Your task to perform on an android device: delete browsing data in the chrome app Image 0: 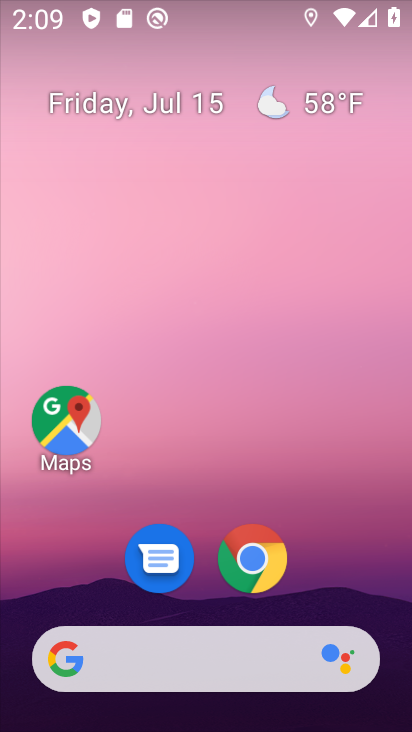
Step 0: drag from (355, 577) to (391, 154)
Your task to perform on an android device: delete browsing data in the chrome app Image 1: 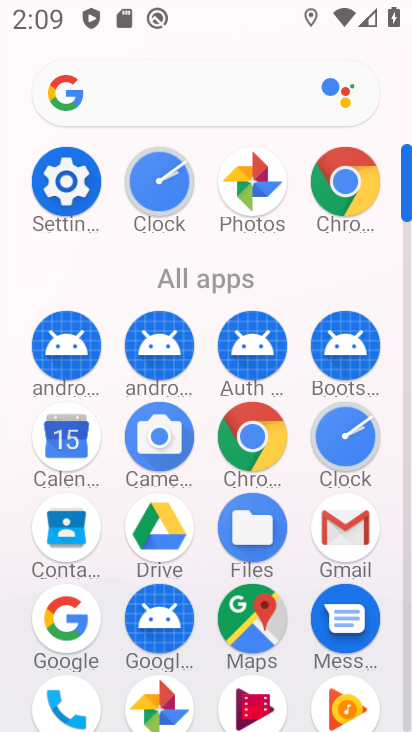
Step 1: click (354, 199)
Your task to perform on an android device: delete browsing data in the chrome app Image 2: 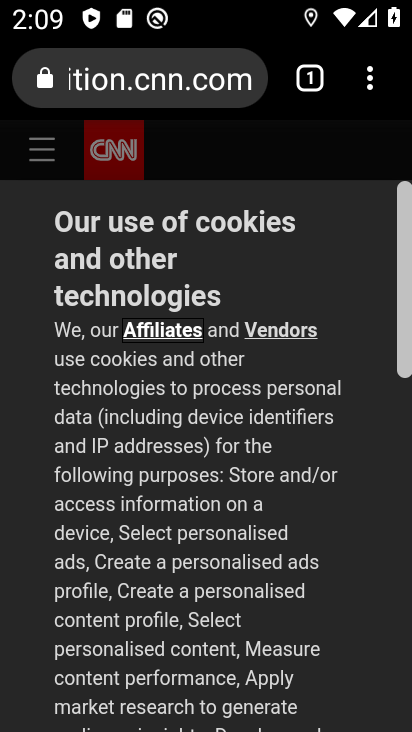
Step 2: click (368, 76)
Your task to perform on an android device: delete browsing data in the chrome app Image 3: 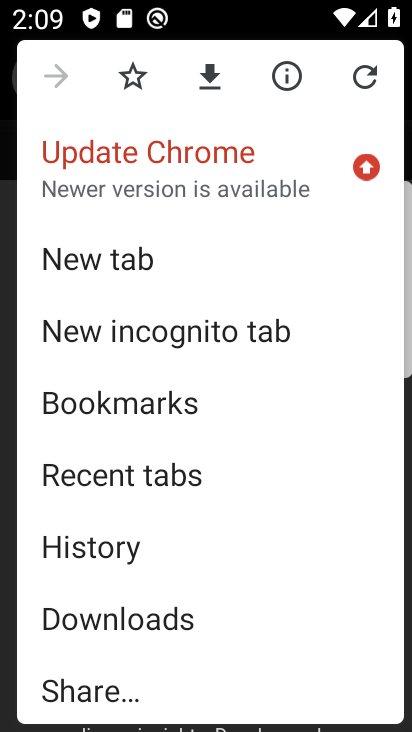
Step 3: drag from (342, 461) to (351, 391)
Your task to perform on an android device: delete browsing data in the chrome app Image 4: 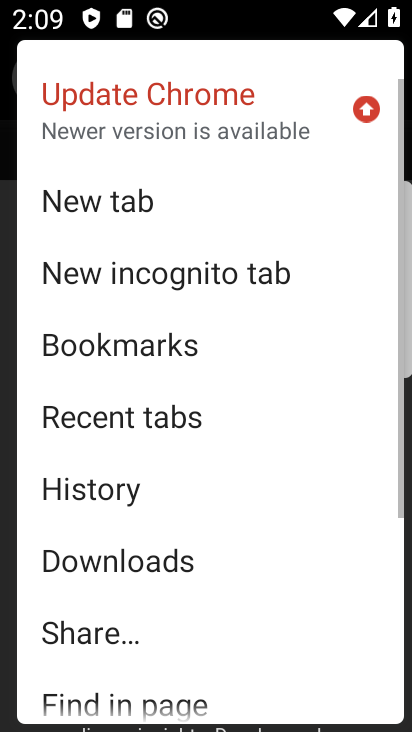
Step 4: drag from (337, 446) to (348, 377)
Your task to perform on an android device: delete browsing data in the chrome app Image 5: 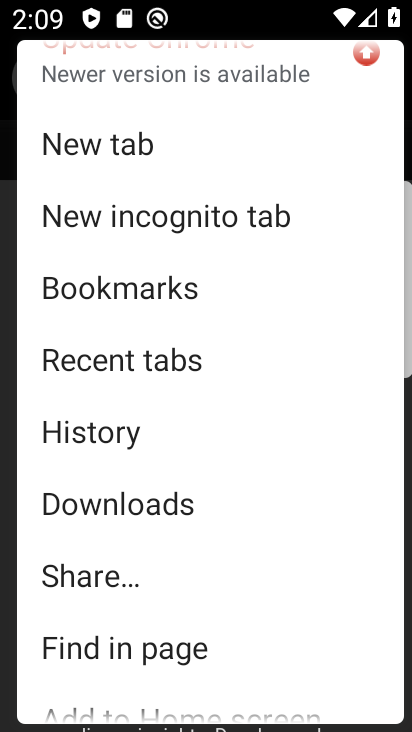
Step 5: drag from (330, 463) to (336, 383)
Your task to perform on an android device: delete browsing data in the chrome app Image 6: 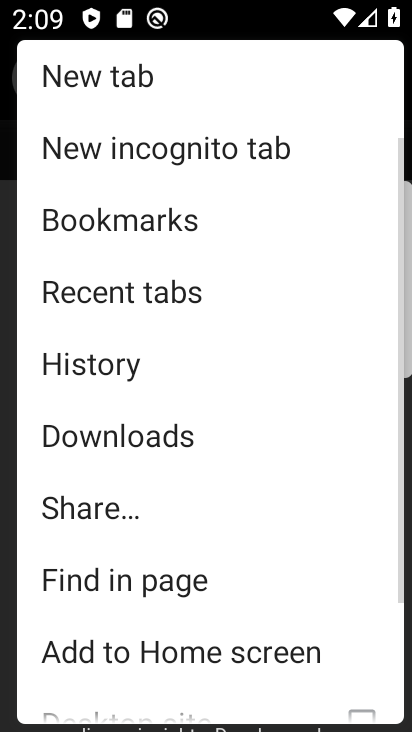
Step 6: drag from (328, 454) to (336, 389)
Your task to perform on an android device: delete browsing data in the chrome app Image 7: 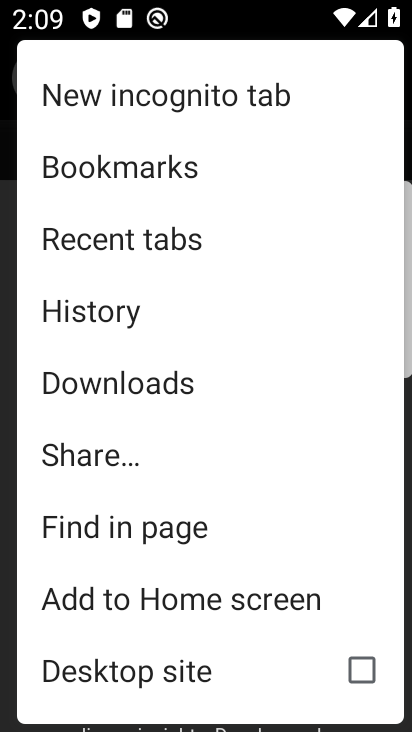
Step 7: drag from (325, 444) to (320, 356)
Your task to perform on an android device: delete browsing data in the chrome app Image 8: 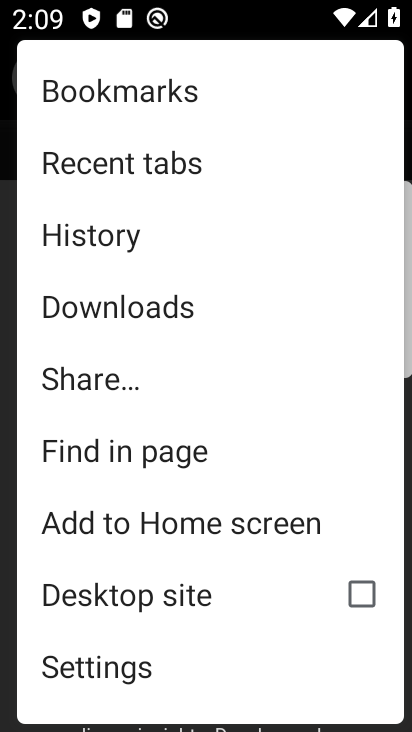
Step 8: drag from (307, 424) to (311, 333)
Your task to perform on an android device: delete browsing data in the chrome app Image 9: 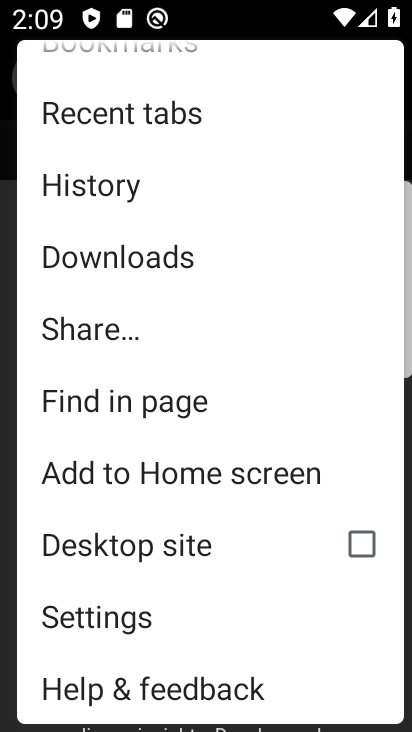
Step 9: click (136, 610)
Your task to perform on an android device: delete browsing data in the chrome app Image 10: 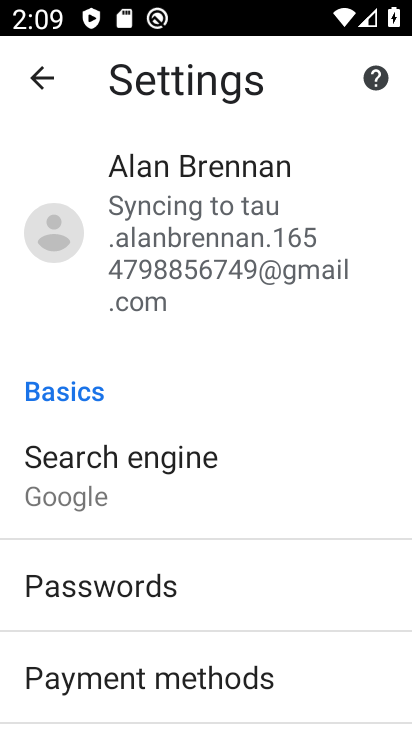
Step 10: drag from (270, 578) to (283, 496)
Your task to perform on an android device: delete browsing data in the chrome app Image 11: 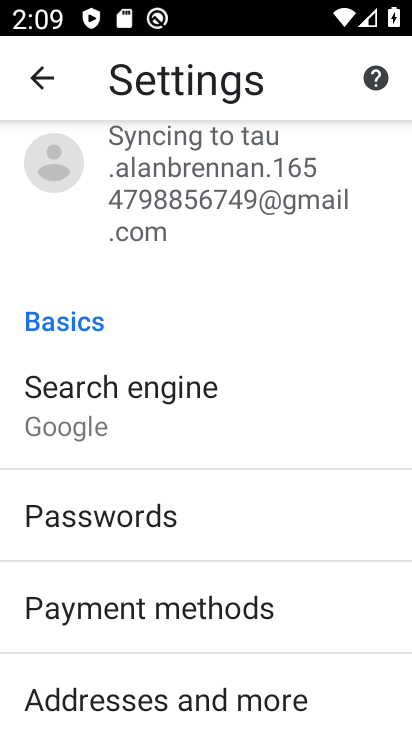
Step 11: drag from (311, 572) to (317, 489)
Your task to perform on an android device: delete browsing data in the chrome app Image 12: 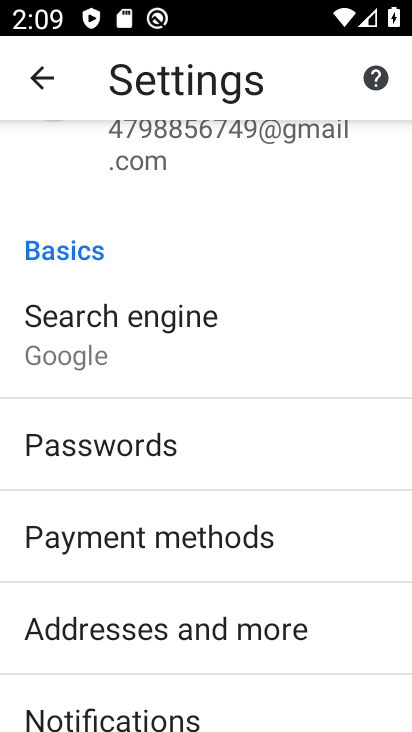
Step 12: drag from (322, 554) to (335, 470)
Your task to perform on an android device: delete browsing data in the chrome app Image 13: 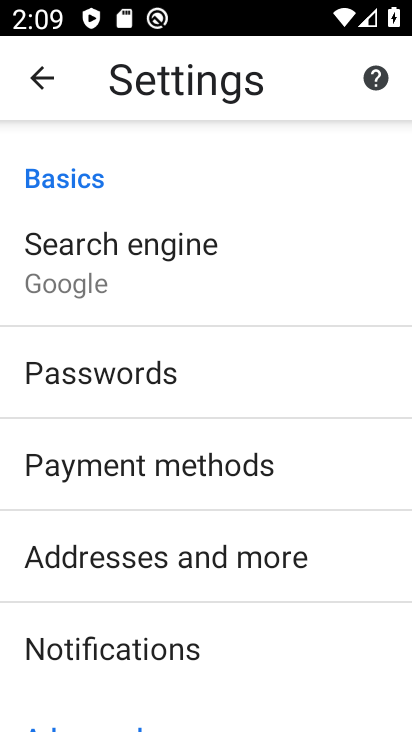
Step 13: drag from (328, 563) to (334, 475)
Your task to perform on an android device: delete browsing data in the chrome app Image 14: 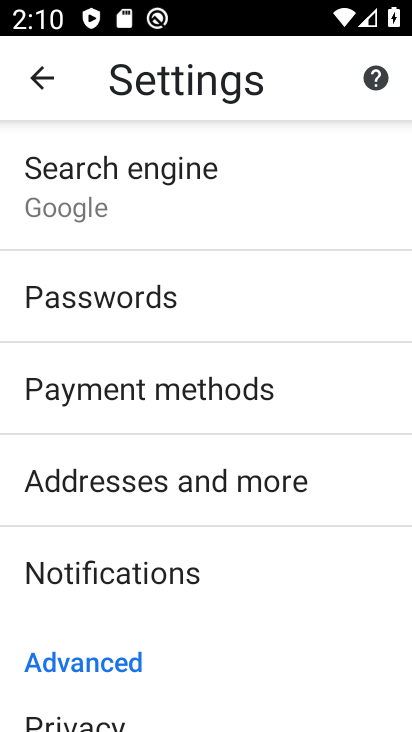
Step 14: drag from (348, 567) to (348, 427)
Your task to perform on an android device: delete browsing data in the chrome app Image 15: 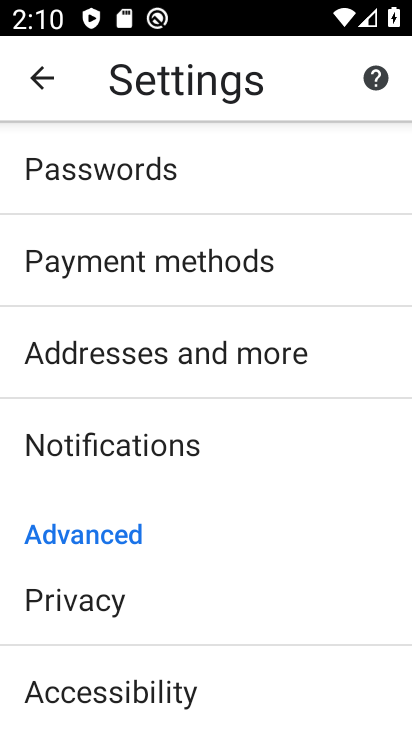
Step 15: drag from (347, 560) to (350, 433)
Your task to perform on an android device: delete browsing data in the chrome app Image 16: 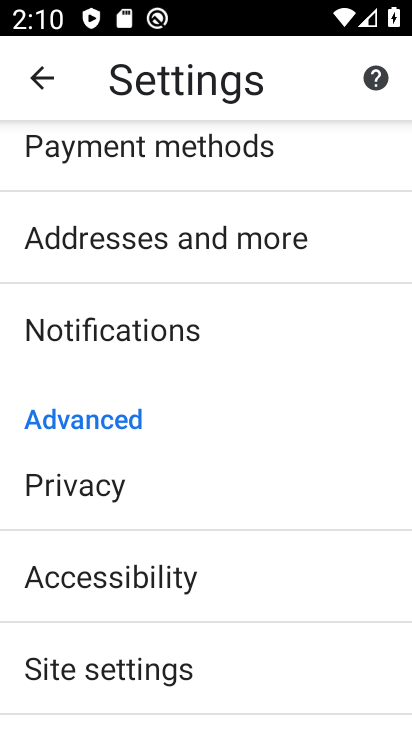
Step 16: drag from (340, 588) to (338, 447)
Your task to perform on an android device: delete browsing data in the chrome app Image 17: 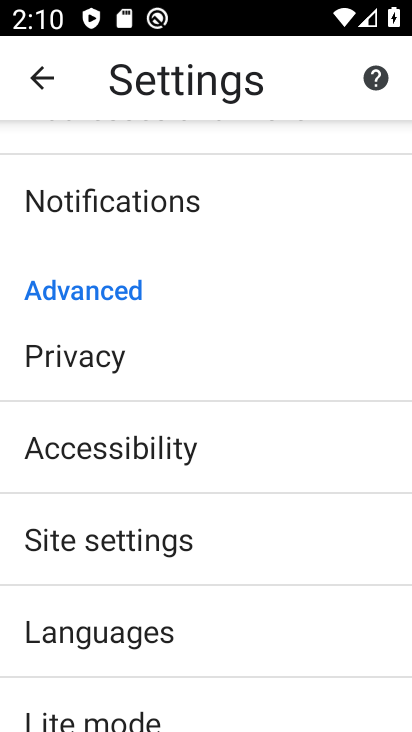
Step 17: drag from (322, 548) to (325, 451)
Your task to perform on an android device: delete browsing data in the chrome app Image 18: 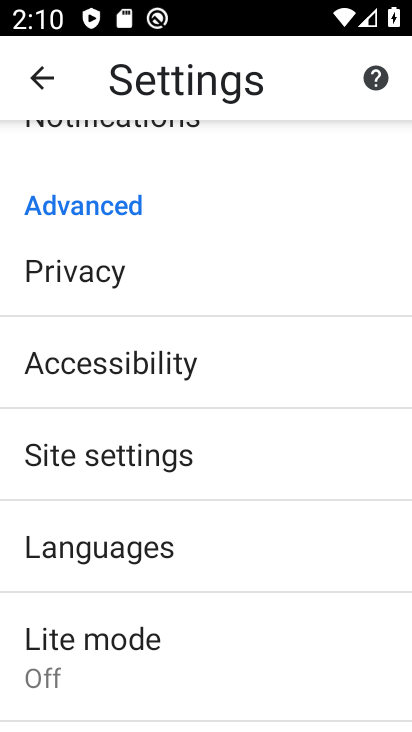
Step 18: click (246, 295)
Your task to perform on an android device: delete browsing data in the chrome app Image 19: 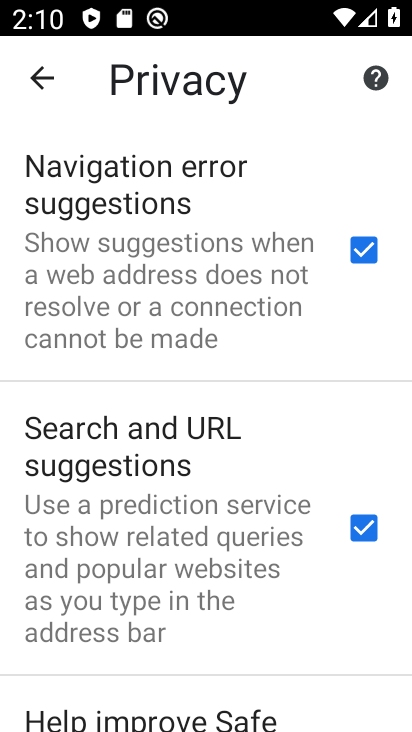
Step 19: drag from (289, 584) to (299, 466)
Your task to perform on an android device: delete browsing data in the chrome app Image 20: 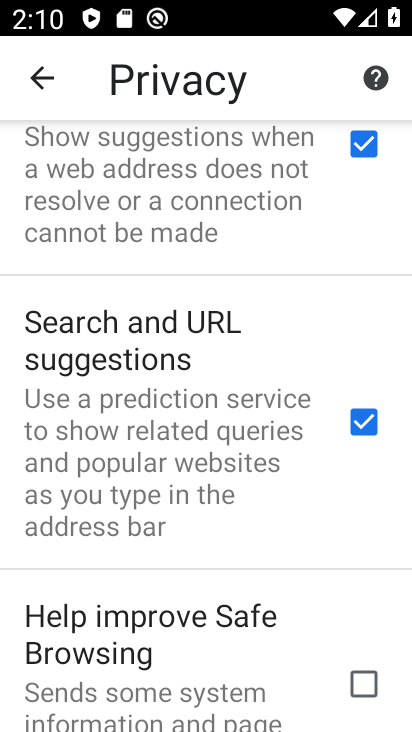
Step 20: drag from (308, 600) to (314, 501)
Your task to perform on an android device: delete browsing data in the chrome app Image 21: 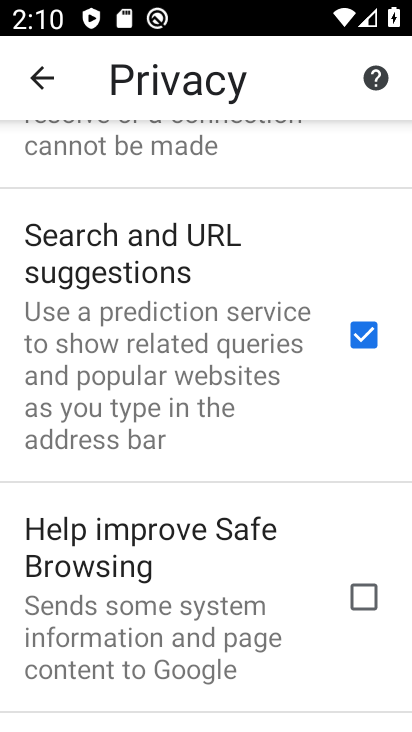
Step 21: drag from (307, 635) to (305, 519)
Your task to perform on an android device: delete browsing data in the chrome app Image 22: 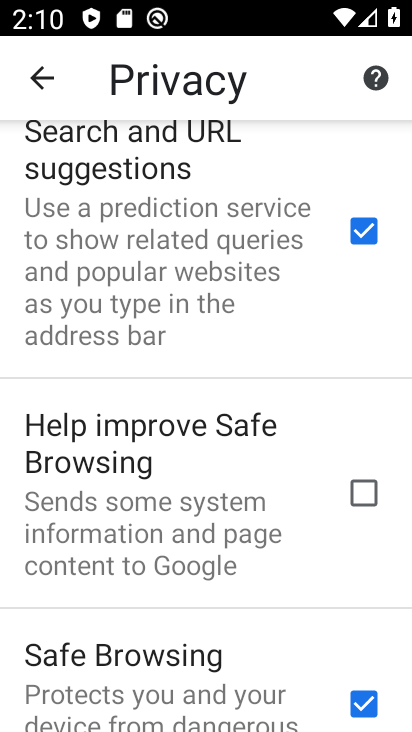
Step 22: drag from (290, 653) to (288, 547)
Your task to perform on an android device: delete browsing data in the chrome app Image 23: 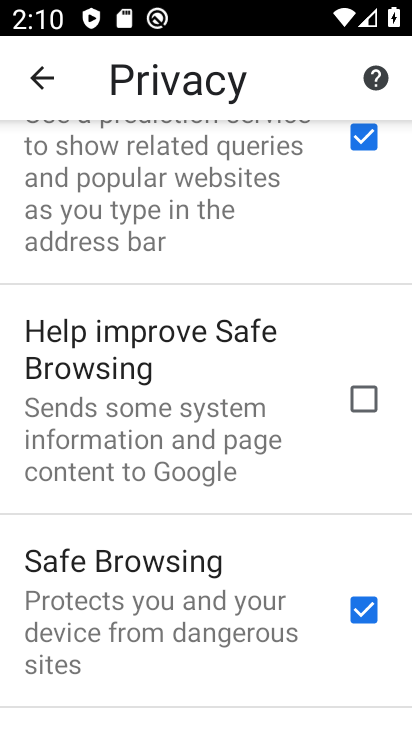
Step 23: drag from (304, 677) to (308, 574)
Your task to perform on an android device: delete browsing data in the chrome app Image 24: 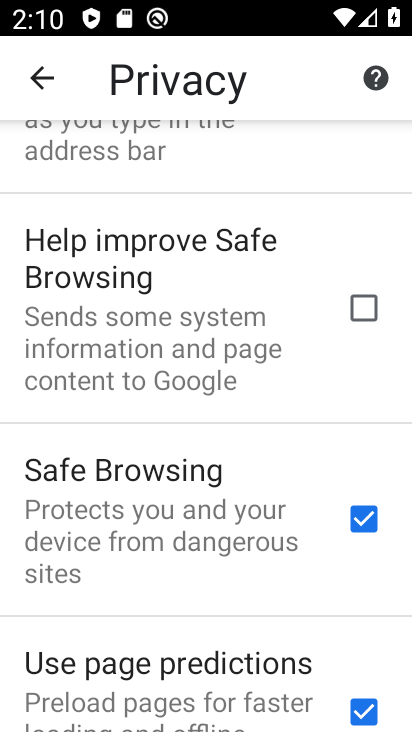
Step 24: drag from (310, 682) to (304, 566)
Your task to perform on an android device: delete browsing data in the chrome app Image 25: 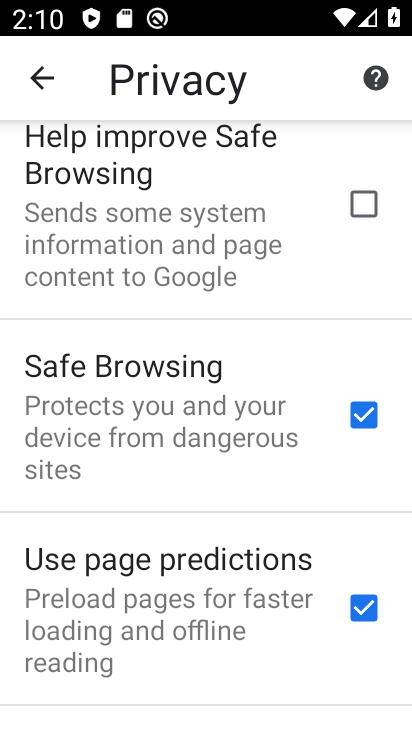
Step 25: drag from (302, 656) to (302, 547)
Your task to perform on an android device: delete browsing data in the chrome app Image 26: 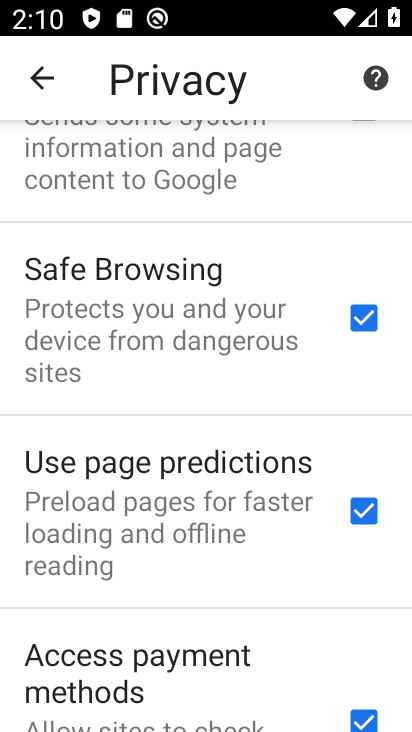
Step 26: drag from (310, 666) to (307, 550)
Your task to perform on an android device: delete browsing data in the chrome app Image 27: 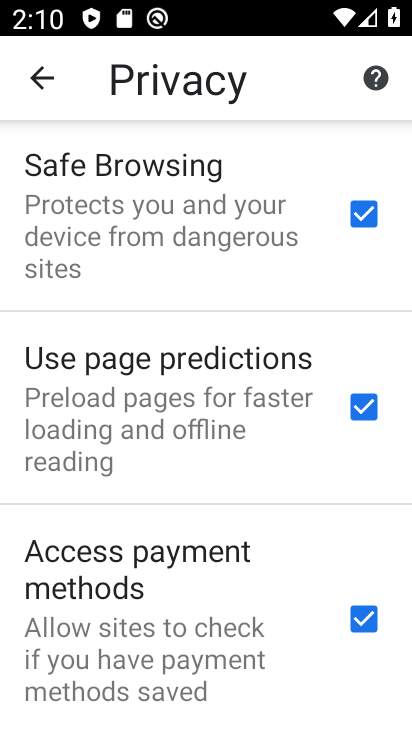
Step 27: drag from (306, 638) to (308, 452)
Your task to perform on an android device: delete browsing data in the chrome app Image 28: 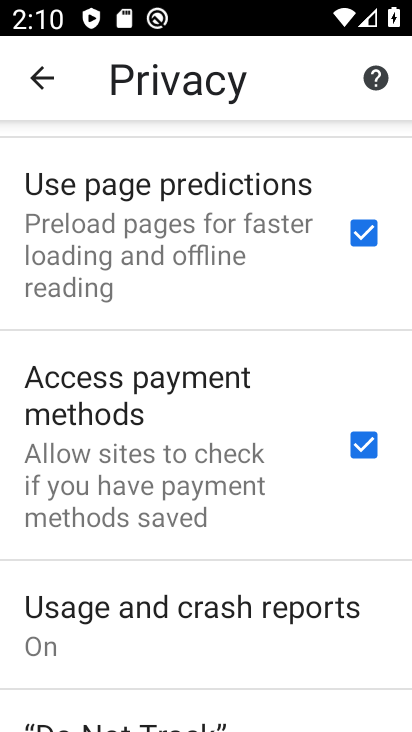
Step 28: drag from (300, 666) to (304, 514)
Your task to perform on an android device: delete browsing data in the chrome app Image 29: 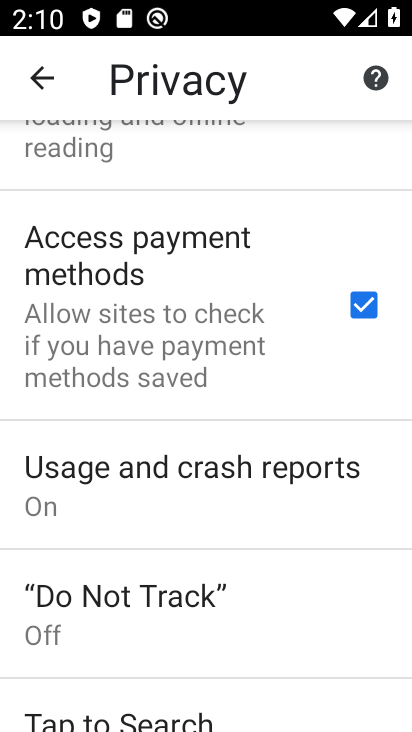
Step 29: drag from (292, 696) to (300, 496)
Your task to perform on an android device: delete browsing data in the chrome app Image 30: 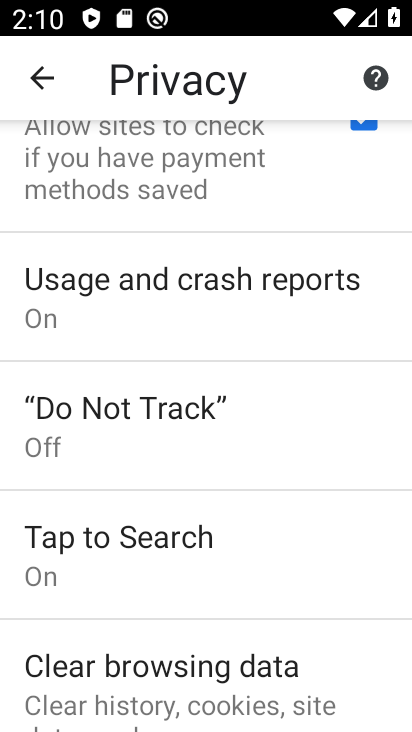
Step 30: click (305, 670)
Your task to perform on an android device: delete browsing data in the chrome app Image 31: 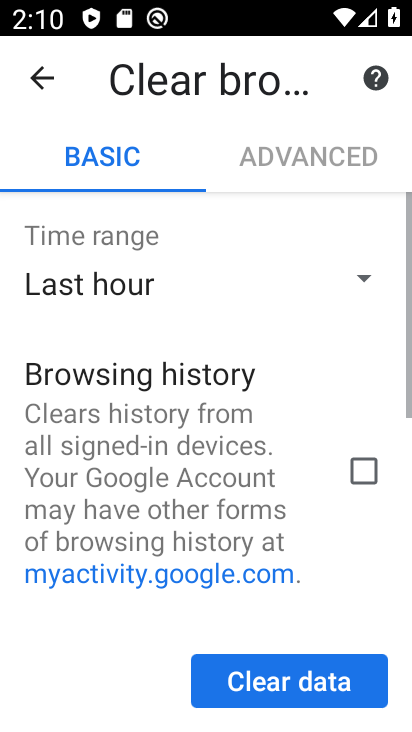
Step 31: click (360, 470)
Your task to perform on an android device: delete browsing data in the chrome app Image 32: 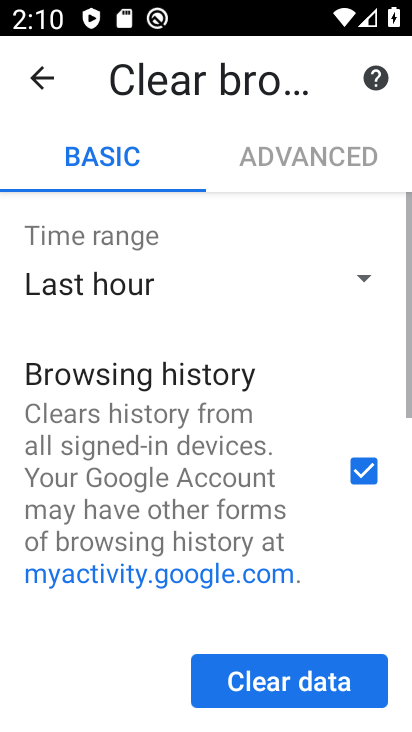
Step 32: drag from (298, 492) to (301, 296)
Your task to perform on an android device: delete browsing data in the chrome app Image 33: 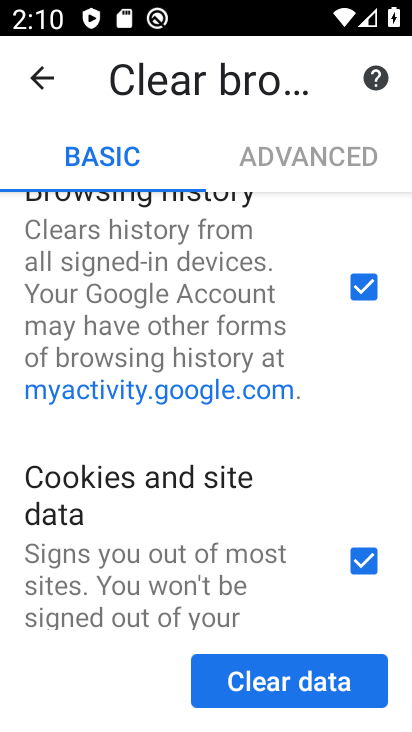
Step 33: click (320, 676)
Your task to perform on an android device: delete browsing data in the chrome app Image 34: 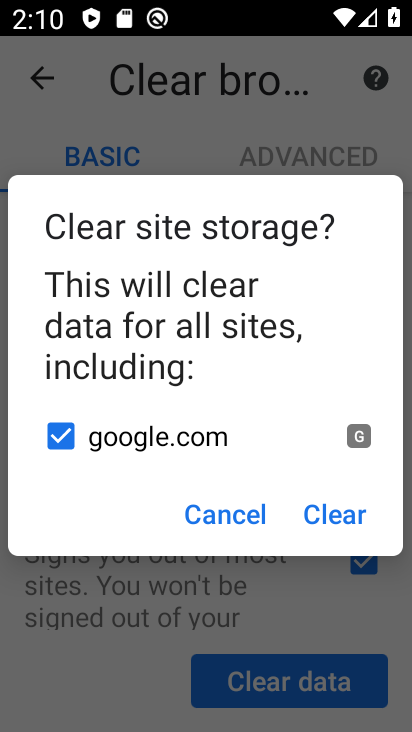
Step 34: click (334, 510)
Your task to perform on an android device: delete browsing data in the chrome app Image 35: 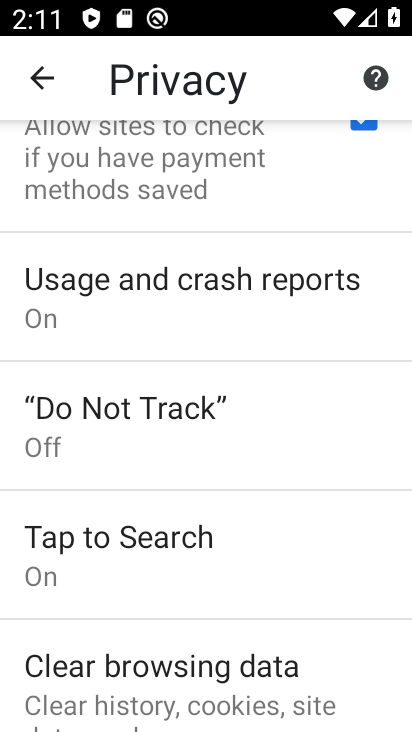
Step 35: task complete